Your task to perform on an android device: Check the news Image 0: 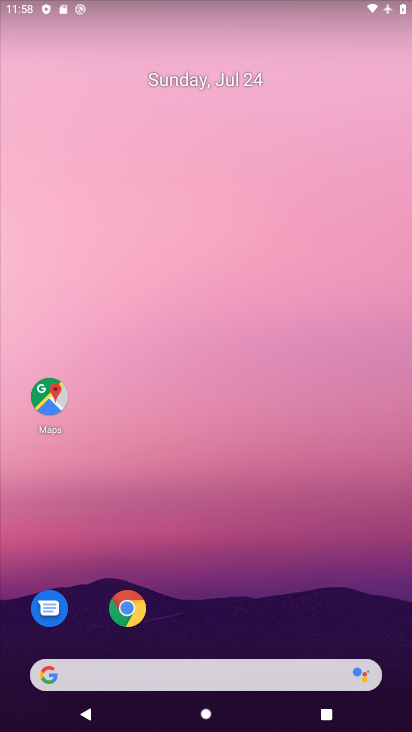
Step 0: drag from (214, 656) to (252, 33)
Your task to perform on an android device: Check the news Image 1: 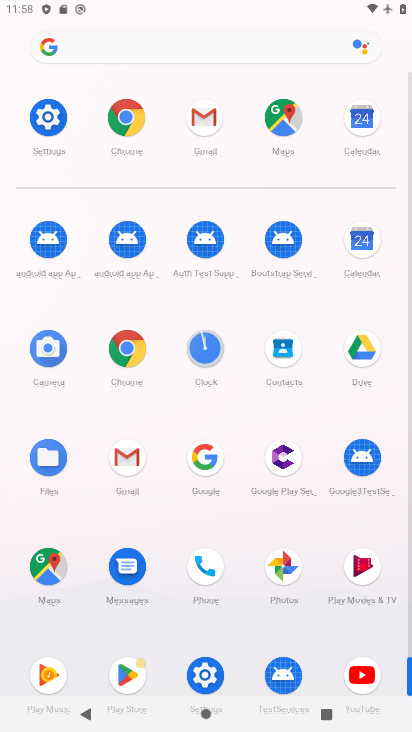
Step 1: click (202, 458)
Your task to perform on an android device: Check the news Image 2: 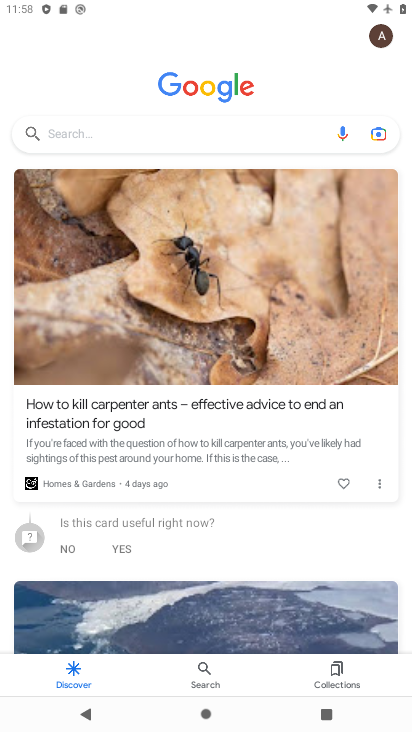
Step 2: click (268, 140)
Your task to perform on an android device: Check the news Image 3: 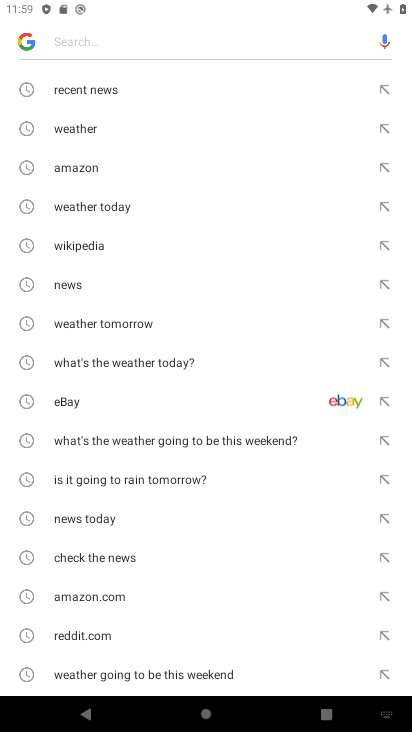
Step 3: click (97, 290)
Your task to perform on an android device: Check the news Image 4: 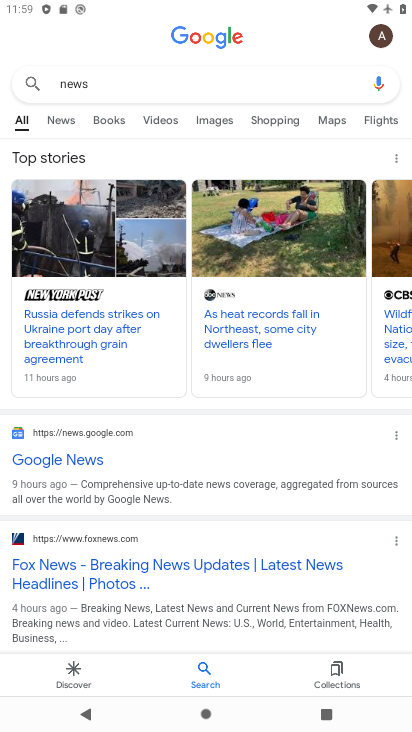
Step 4: click (54, 129)
Your task to perform on an android device: Check the news Image 5: 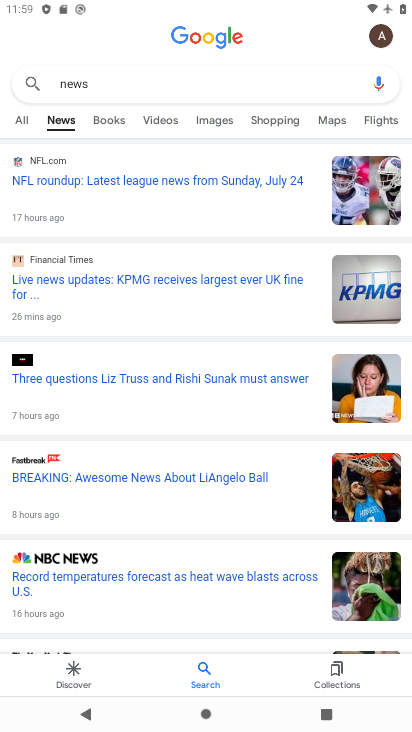
Step 5: task complete